Your task to perform on an android device: Play the last video I watched on Youtube Image 0: 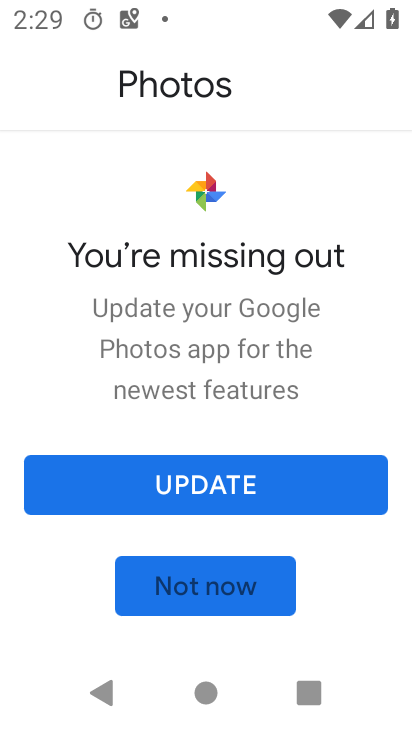
Step 0: press home button
Your task to perform on an android device: Play the last video I watched on Youtube Image 1: 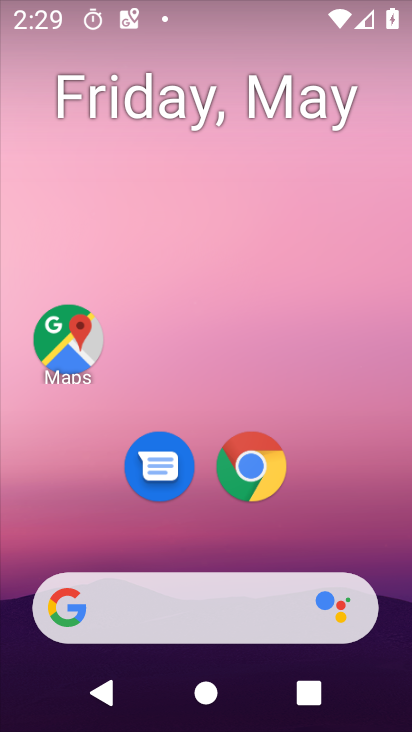
Step 1: drag from (357, 491) to (404, 28)
Your task to perform on an android device: Play the last video I watched on Youtube Image 2: 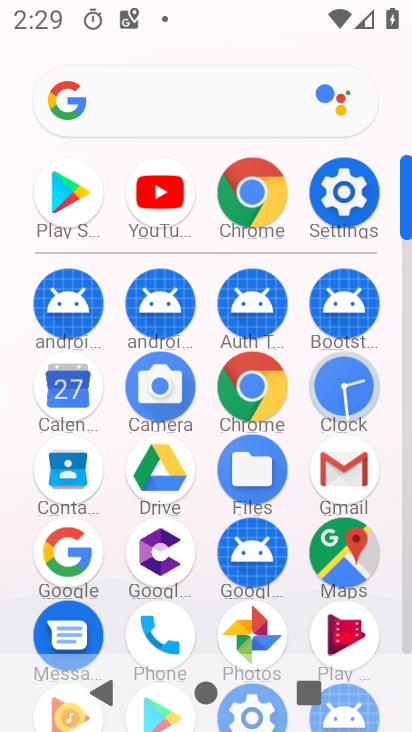
Step 2: click (180, 197)
Your task to perform on an android device: Play the last video I watched on Youtube Image 3: 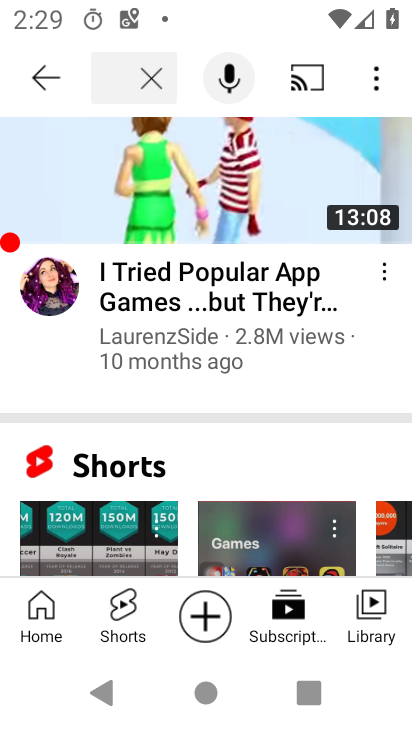
Step 3: click (160, 75)
Your task to perform on an android device: Play the last video I watched on Youtube Image 4: 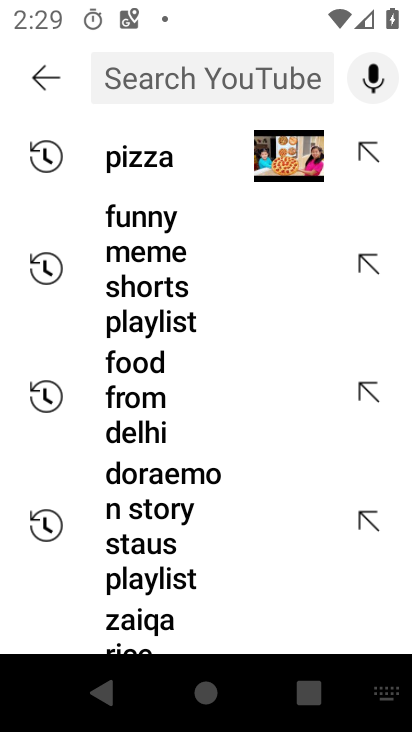
Step 4: press back button
Your task to perform on an android device: Play the last video I watched on Youtube Image 5: 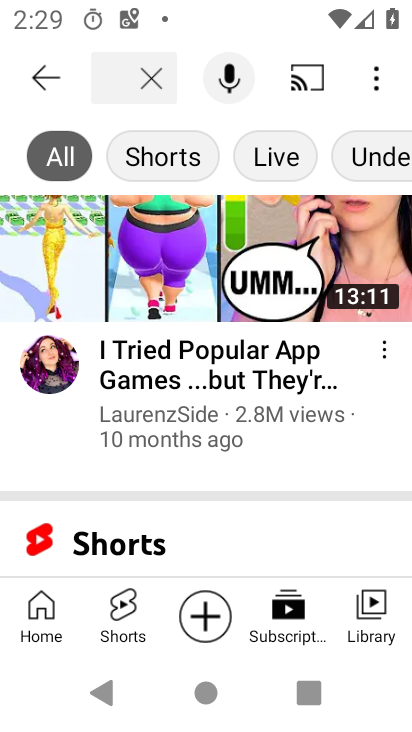
Step 5: click (383, 622)
Your task to perform on an android device: Play the last video I watched on Youtube Image 6: 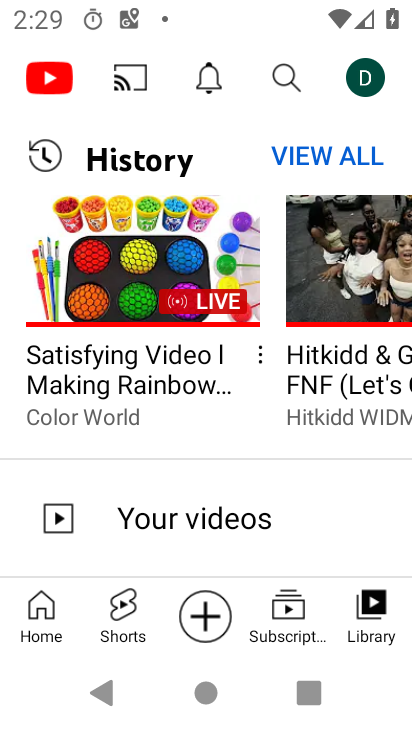
Step 6: click (148, 286)
Your task to perform on an android device: Play the last video I watched on Youtube Image 7: 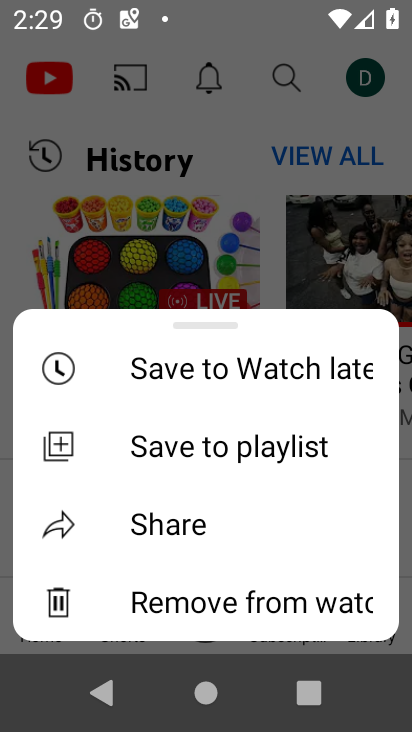
Step 7: click (208, 254)
Your task to perform on an android device: Play the last video I watched on Youtube Image 8: 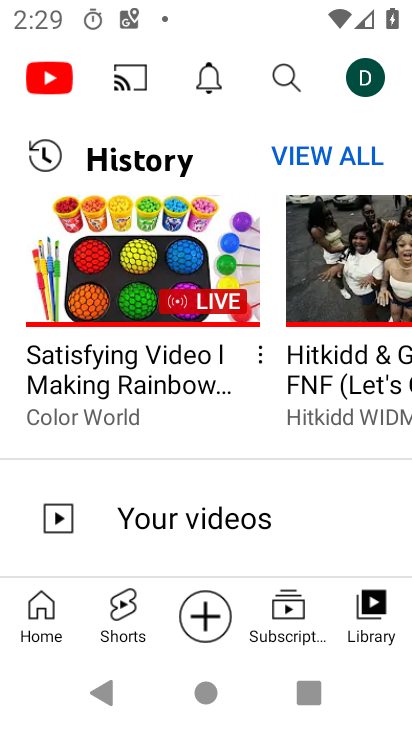
Step 8: click (208, 251)
Your task to perform on an android device: Play the last video I watched on Youtube Image 9: 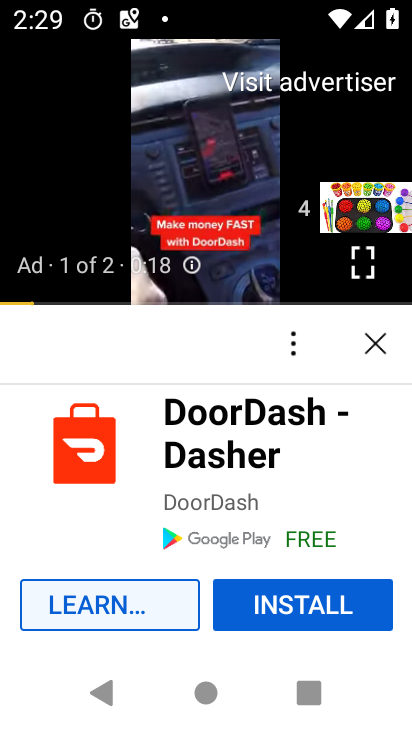
Step 9: task complete